Your task to perform on an android device: What is the news today? Image 0: 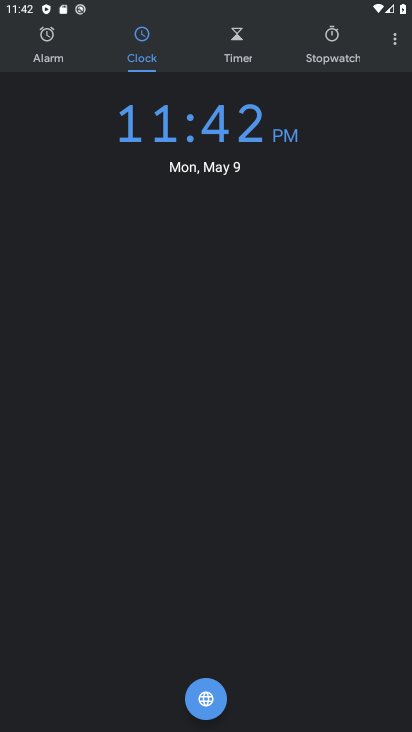
Step 0: press back button
Your task to perform on an android device: What is the news today? Image 1: 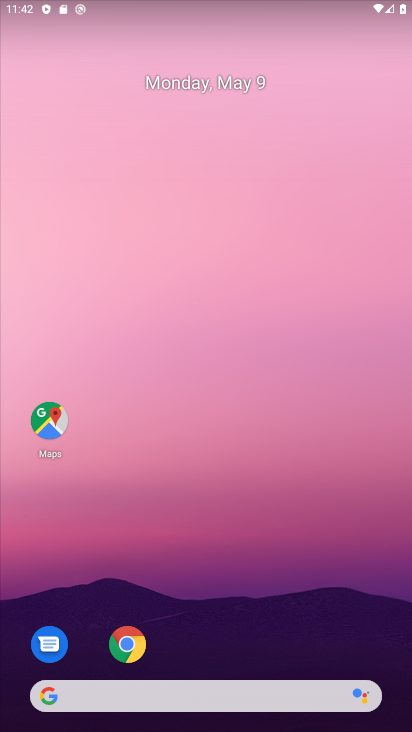
Step 1: click (189, 697)
Your task to perform on an android device: What is the news today? Image 2: 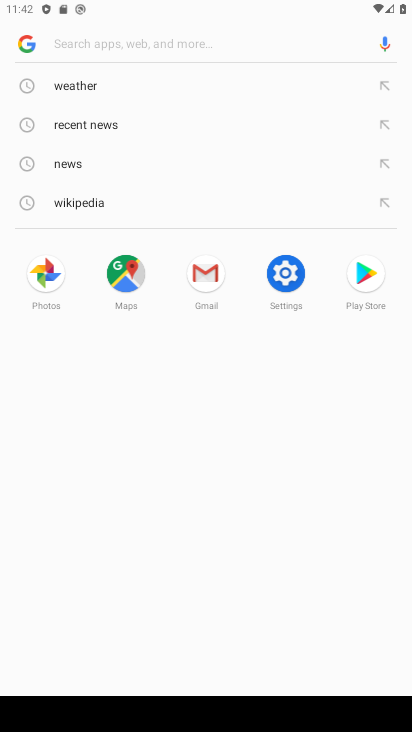
Step 2: click (68, 170)
Your task to perform on an android device: What is the news today? Image 3: 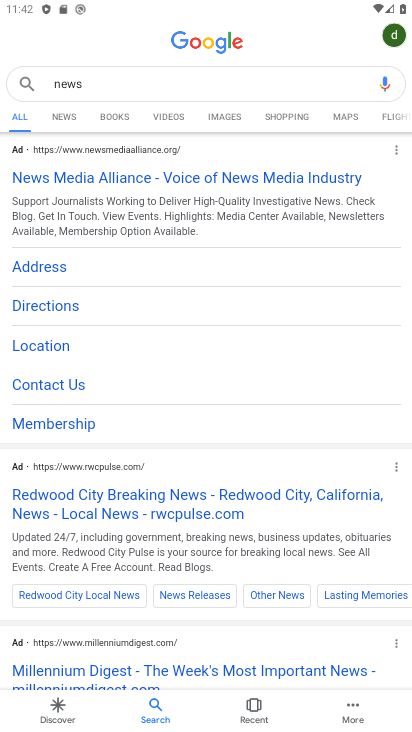
Step 3: task complete